Your task to perform on an android device: Open Wikipedia Image 0: 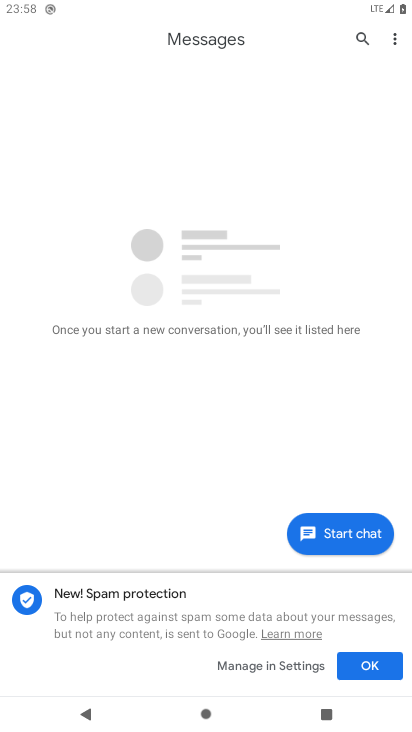
Step 0: press home button
Your task to perform on an android device: Open Wikipedia Image 1: 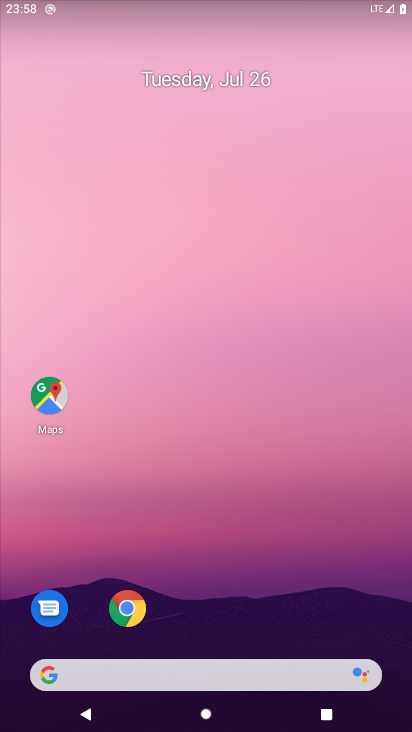
Step 1: click (45, 672)
Your task to perform on an android device: Open Wikipedia Image 2: 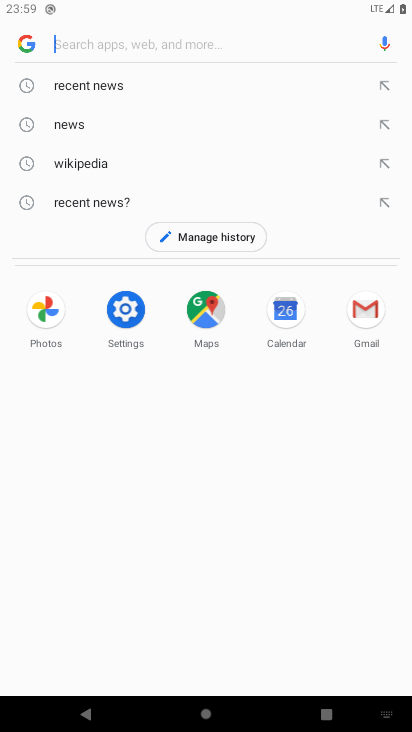
Step 2: click (90, 159)
Your task to perform on an android device: Open Wikipedia Image 3: 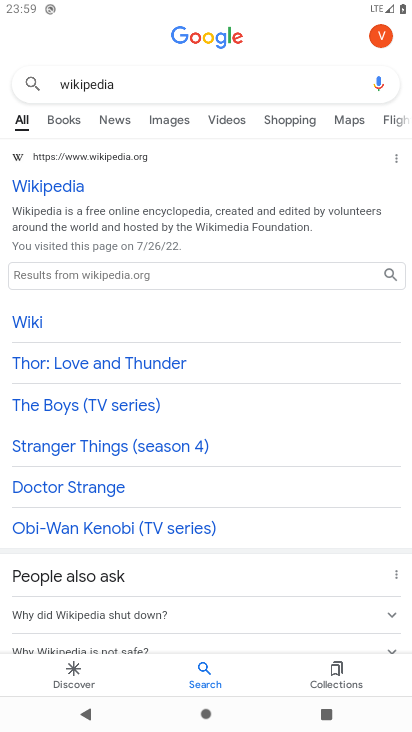
Step 3: click (66, 184)
Your task to perform on an android device: Open Wikipedia Image 4: 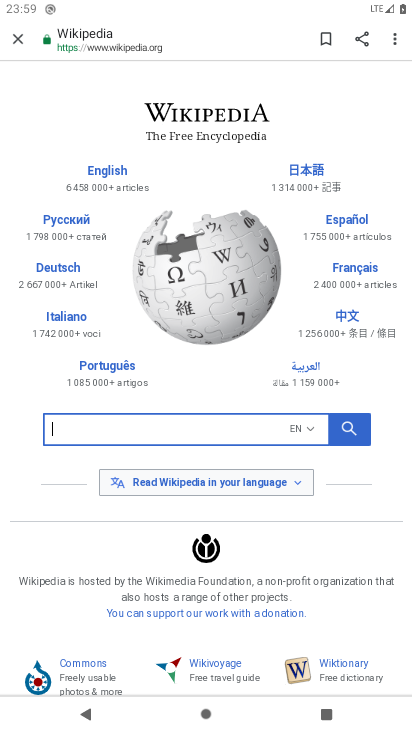
Step 4: task complete